Your task to perform on an android device: Open CNN.com Image 0: 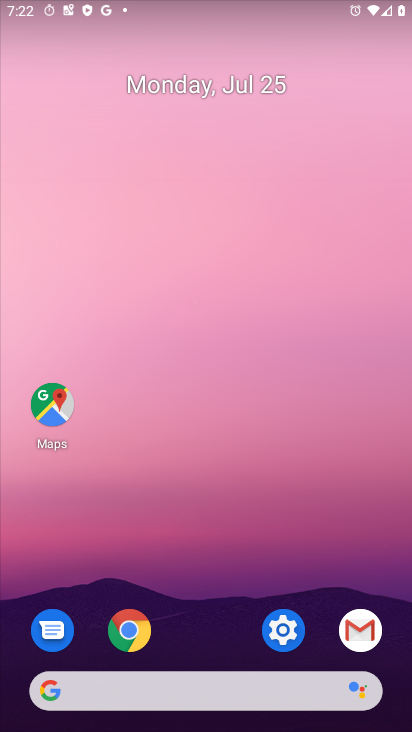
Step 0: click (142, 632)
Your task to perform on an android device: Open CNN.com Image 1: 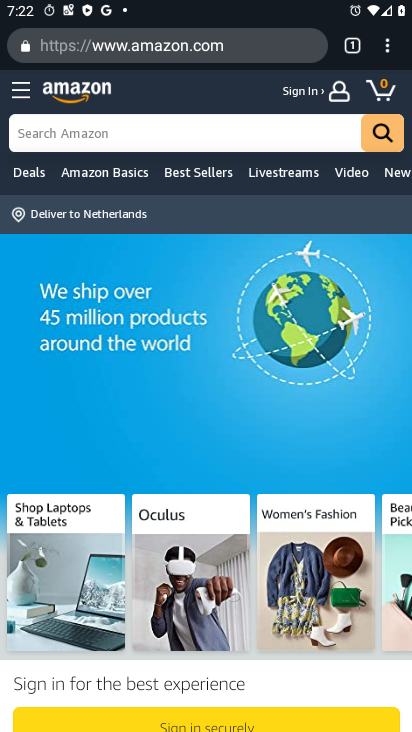
Step 1: click (141, 44)
Your task to perform on an android device: Open CNN.com Image 2: 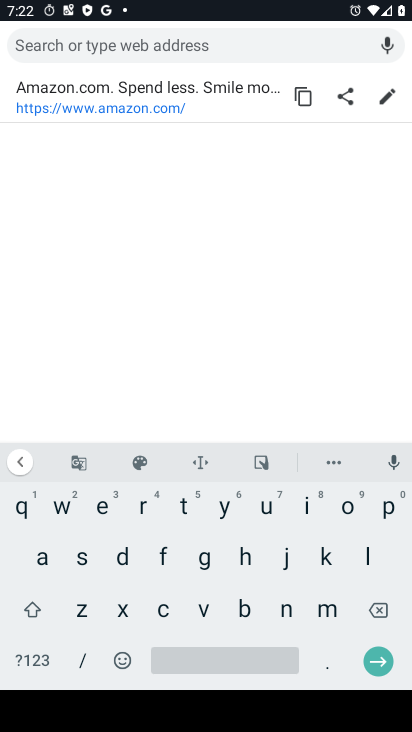
Step 2: click (160, 605)
Your task to perform on an android device: Open CNN.com Image 3: 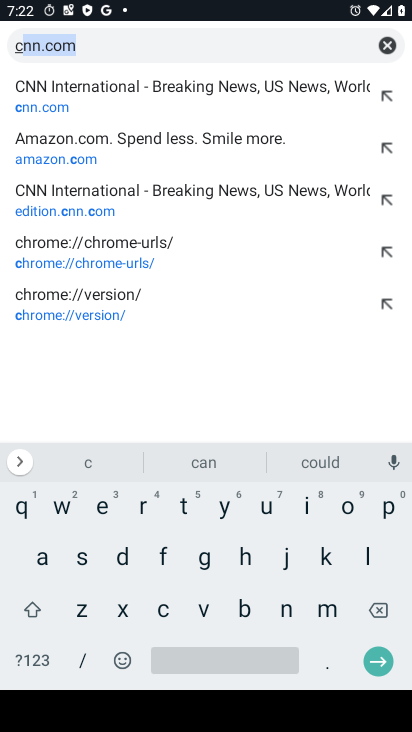
Step 3: click (149, 55)
Your task to perform on an android device: Open CNN.com Image 4: 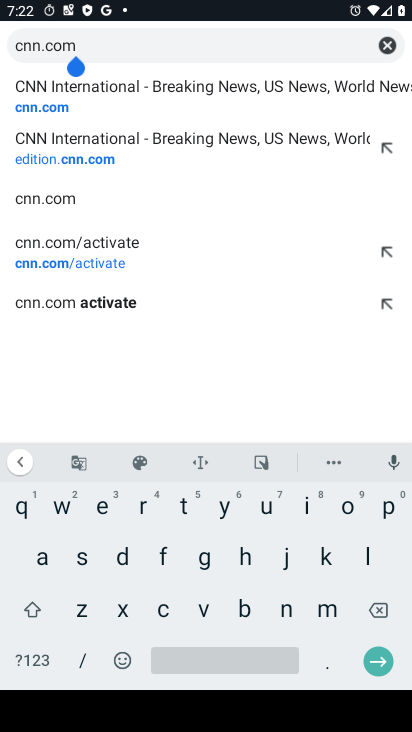
Step 4: click (376, 671)
Your task to perform on an android device: Open CNN.com Image 5: 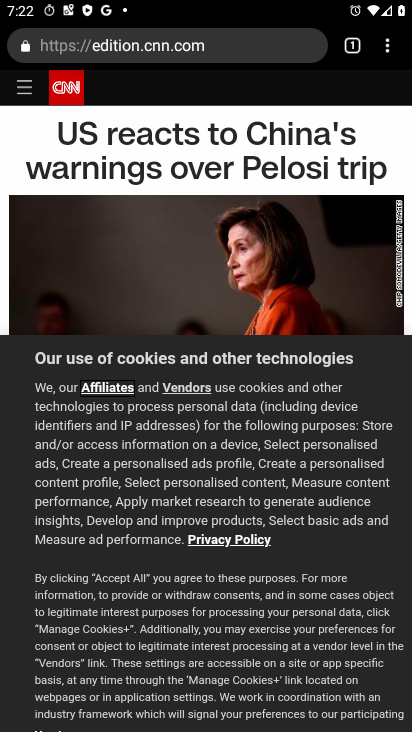
Step 5: task complete